Your task to perform on an android device: turn on data saver in the chrome app Image 0: 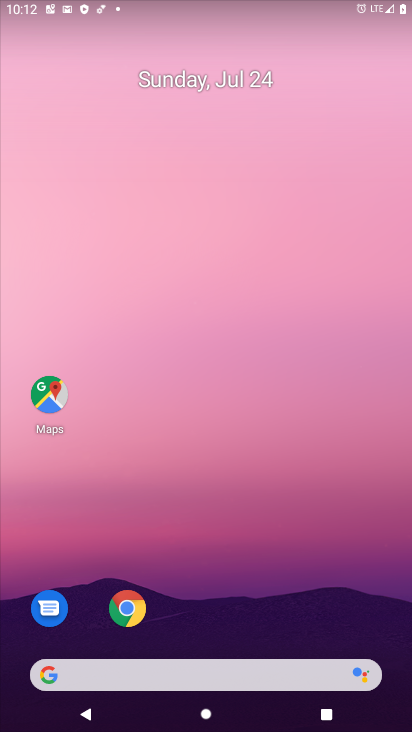
Step 0: click (123, 604)
Your task to perform on an android device: turn on data saver in the chrome app Image 1: 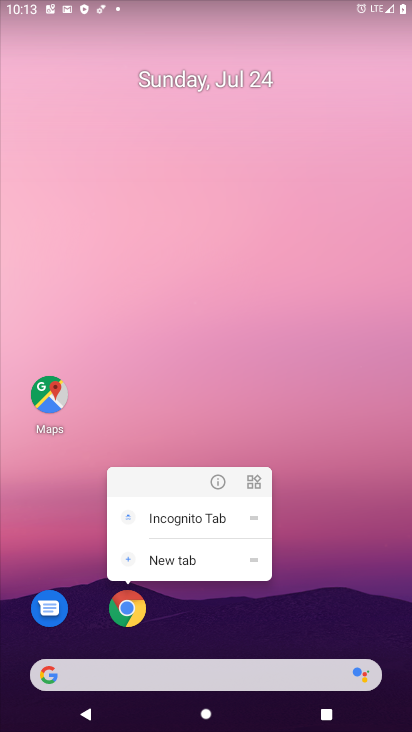
Step 1: click (123, 606)
Your task to perform on an android device: turn on data saver in the chrome app Image 2: 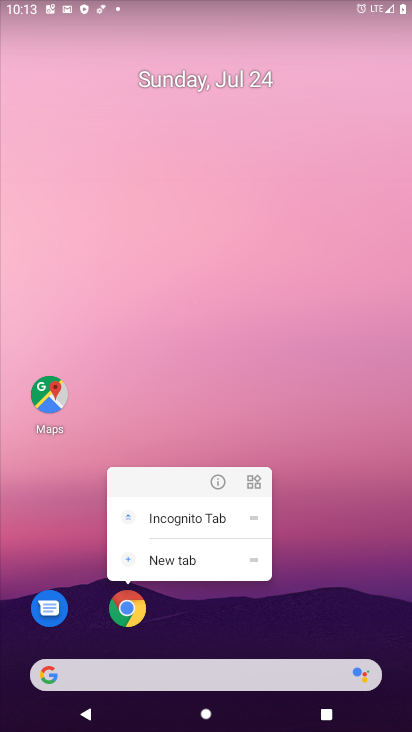
Step 2: click (125, 603)
Your task to perform on an android device: turn on data saver in the chrome app Image 3: 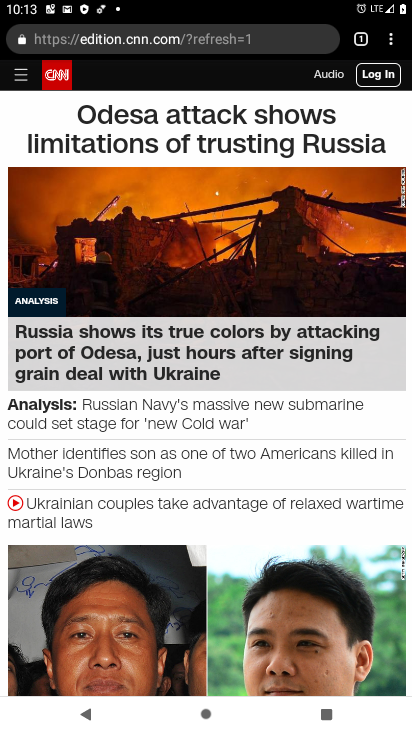
Step 3: click (393, 37)
Your task to perform on an android device: turn on data saver in the chrome app Image 4: 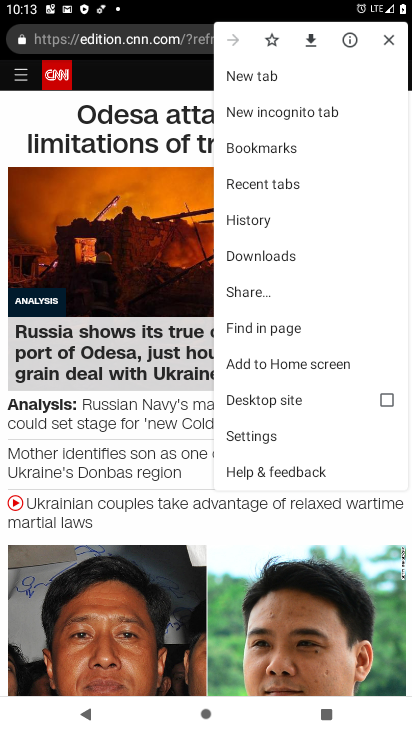
Step 4: click (288, 433)
Your task to perform on an android device: turn on data saver in the chrome app Image 5: 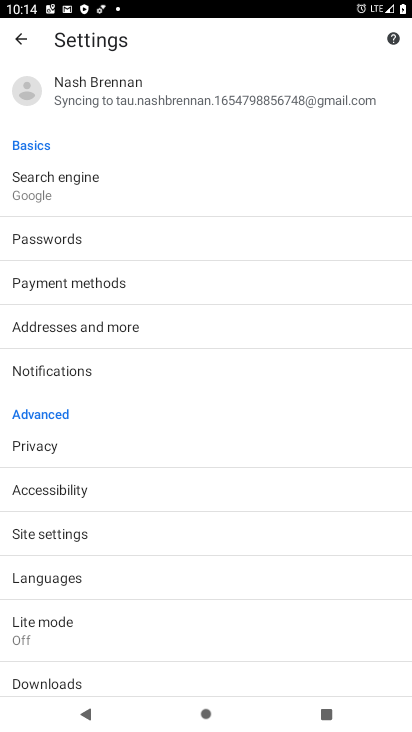
Step 5: click (88, 627)
Your task to perform on an android device: turn on data saver in the chrome app Image 6: 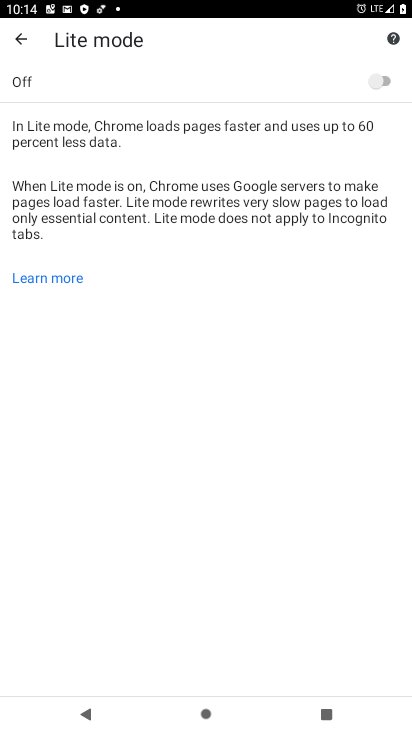
Step 6: click (382, 78)
Your task to perform on an android device: turn on data saver in the chrome app Image 7: 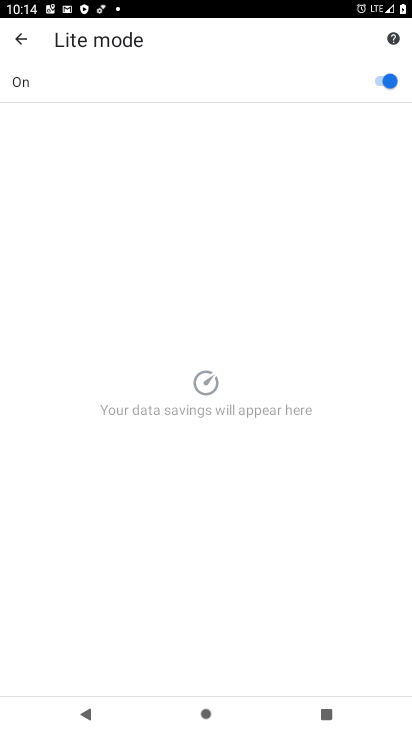
Step 7: task complete